Your task to perform on an android device: toggle notification dots Image 0: 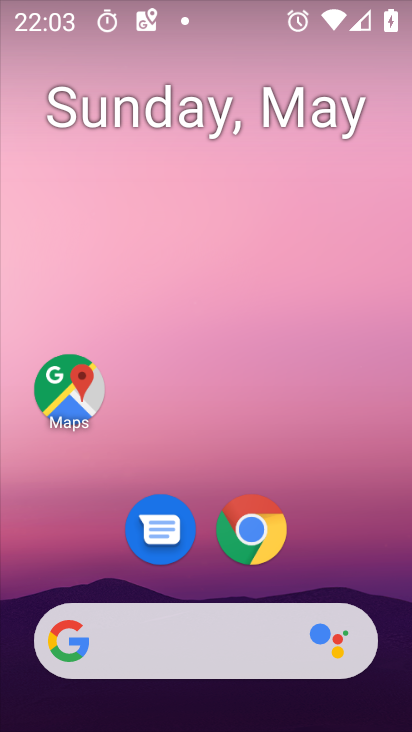
Step 0: drag from (370, 591) to (340, 3)
Your task to perform on an android device: toggle notification dots Image 1: 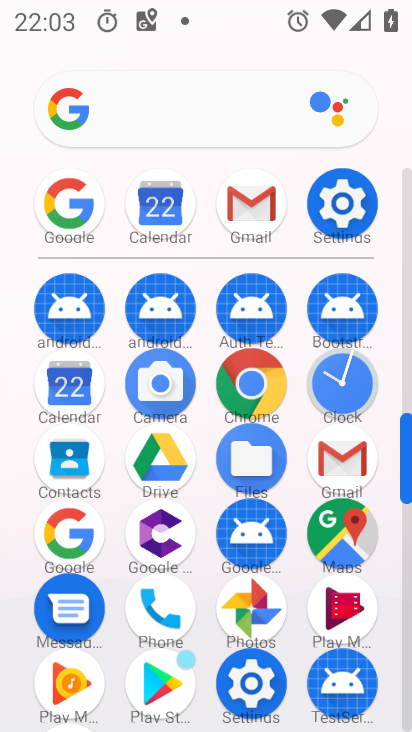
Step 1: click (339, 205)
Your task to perform on an android device: toggle notification dots Image 2: 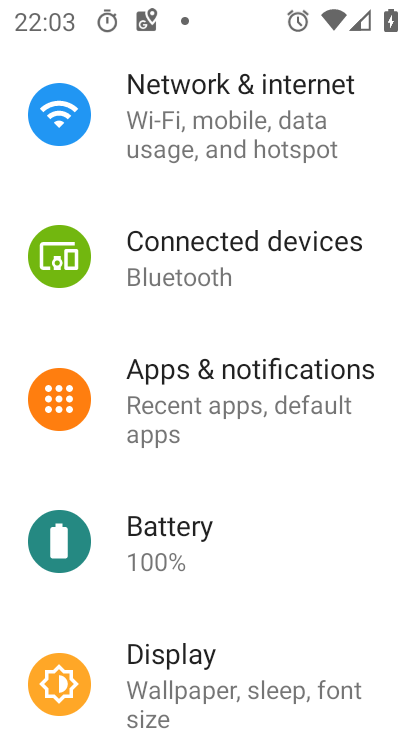
Step 2: click (253, 379)
Your task to perform on an android device: toggle notification dots Image 3: 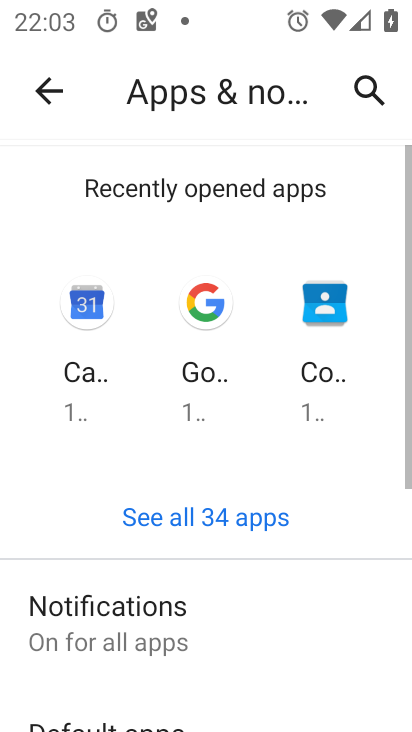
Step 3: drag from (200, 615) to (208, 65)
Your task to perform on an android device: toggle notification dots Image 4: 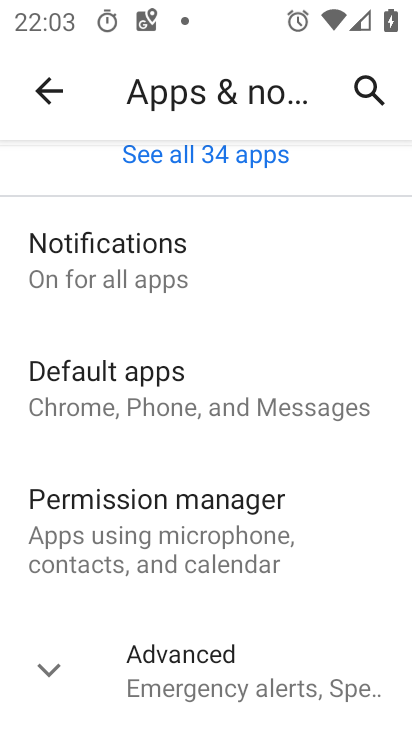
Step 4: click (103, 257)
Your task to perform on an android device: toggle notification dots Image 5: 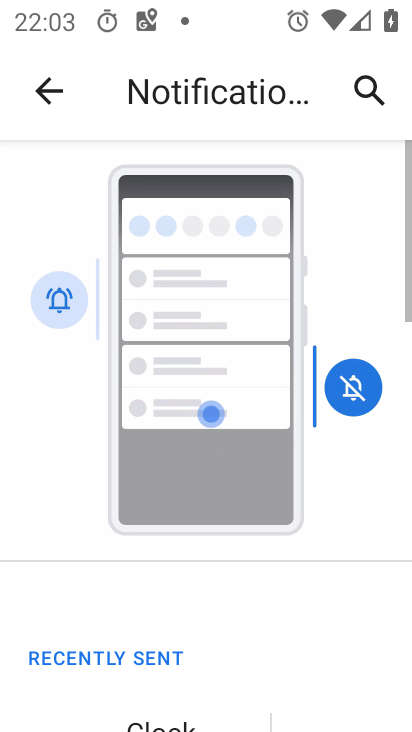
Step 5: drag from (213, 612) to (205, 14)
Your task to perform on an android device: toggle notification dots Image 6: 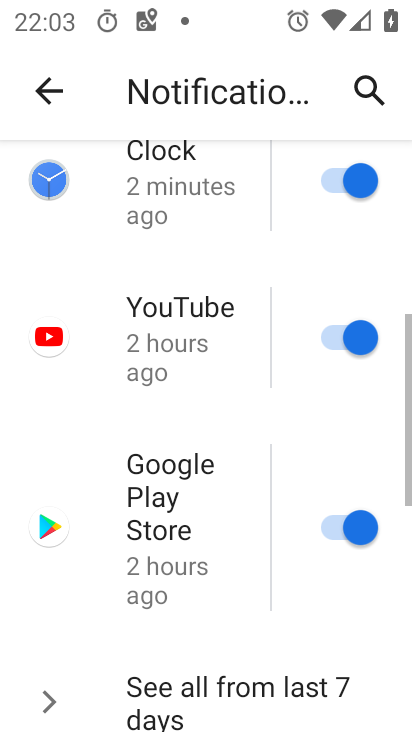
Step 6: drag from (172, 649) to (164, 80)
Your task to perform on an android device: toggle notification dots Image 7: 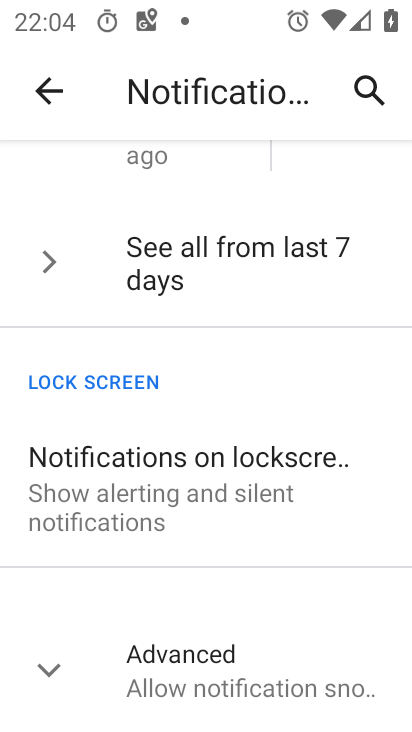
Step 7: click (51, 676)
Your task to perform on an android device: toggle notification dots Image 8: 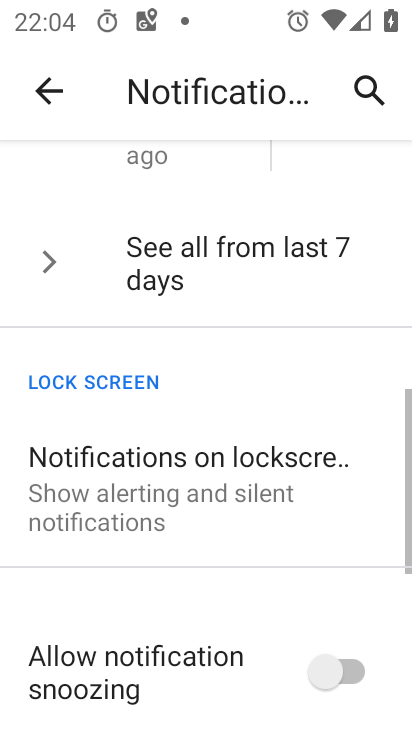
Step 8: drag from (188, 655) to (185, 113)
Your task to perform on an android device: toggle notification dots Image 9: 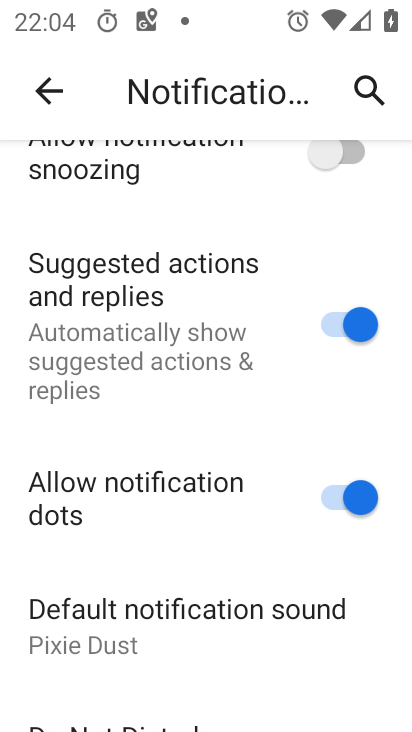
Step 9: click (354, 503)
Your task to perform on an android device: toggle notification dots Image 10: 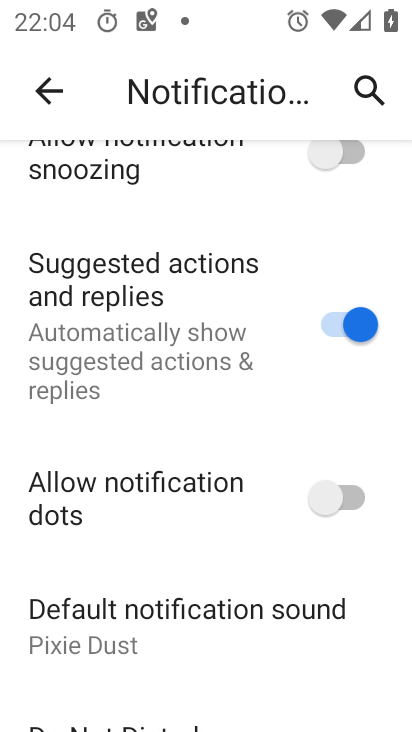
Step 10: task complete